Your task to perform on an android device: toggle show notifications on the lock screen Image 0: 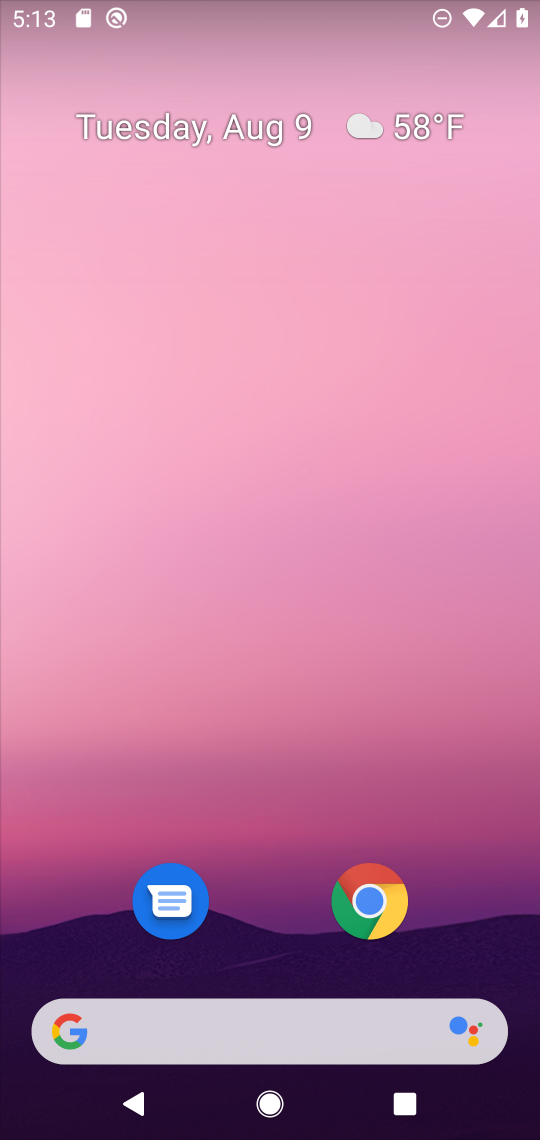
Step 0: drag from (282, 817) to (300, 92)
Your task to perform on an android device: toggle show notifications on the lock screen Image 1: 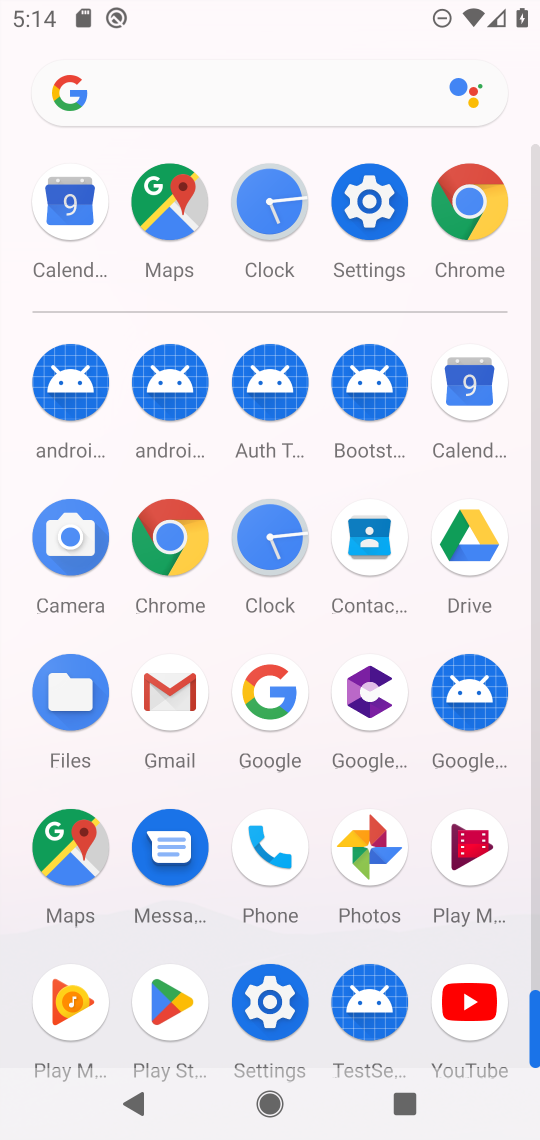
Step 1: click (289, 1008)
Your task to perform on an android device: toggle show notifications on the lock screen Image 2: 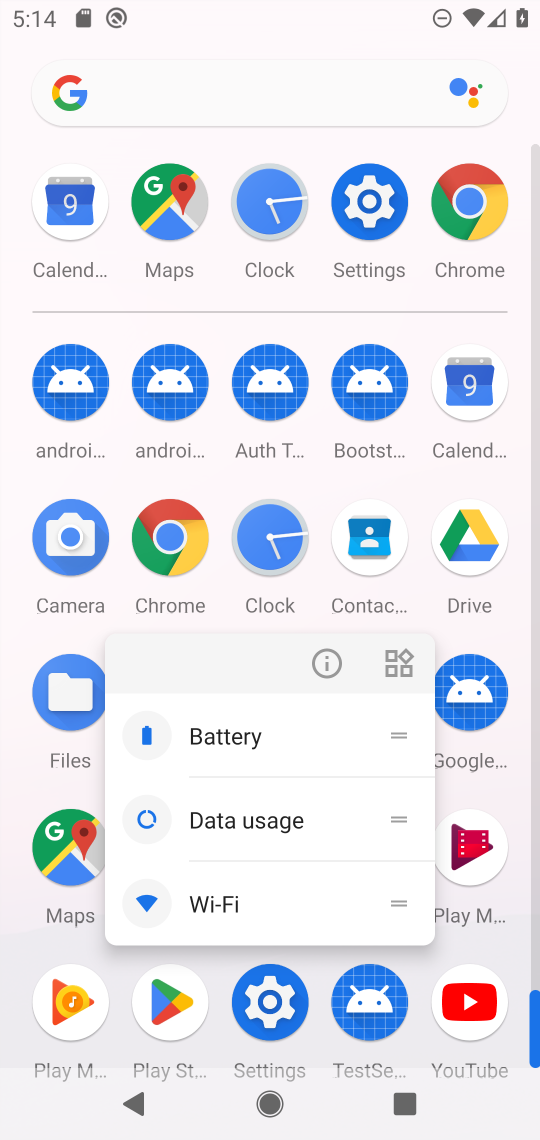
Step 2: click (257, 1005)
Your task to perform on an android device: toggle show notifications on the lock screen Image 3: 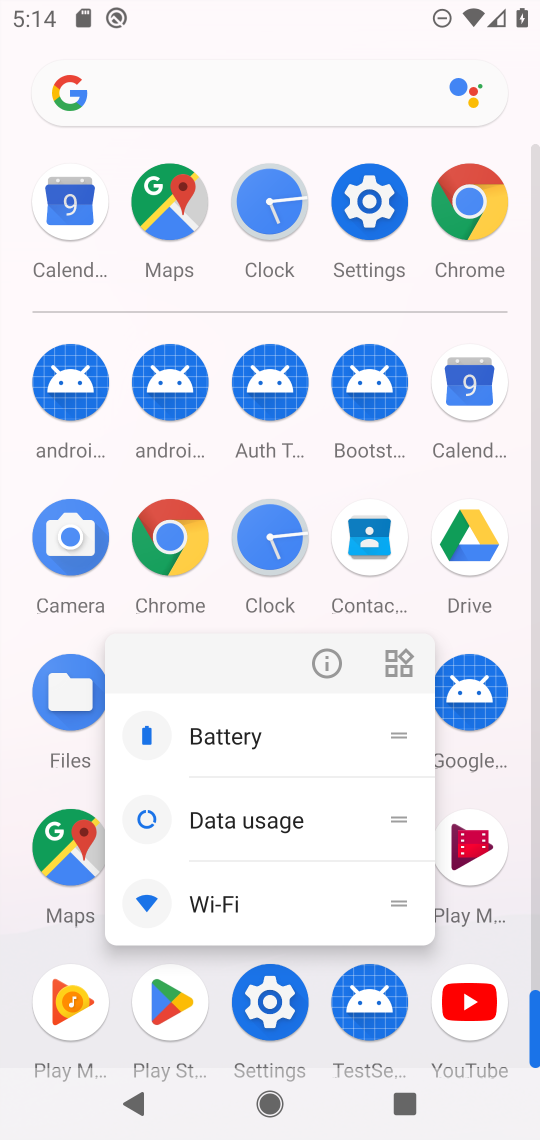
Step 3: click (266, 1019)
Your task to perform on an android device: toggle show notifications on the lock screen Image 4: 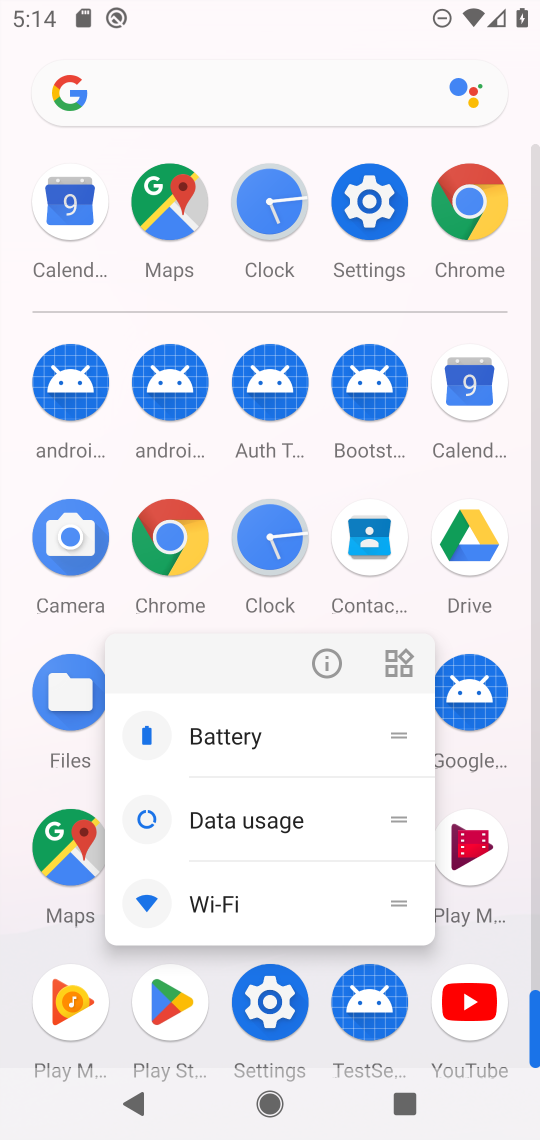
Step 4: click (267, 997)
Your task to perform on an android device: toggle show notifications on the lock screen Image 5: 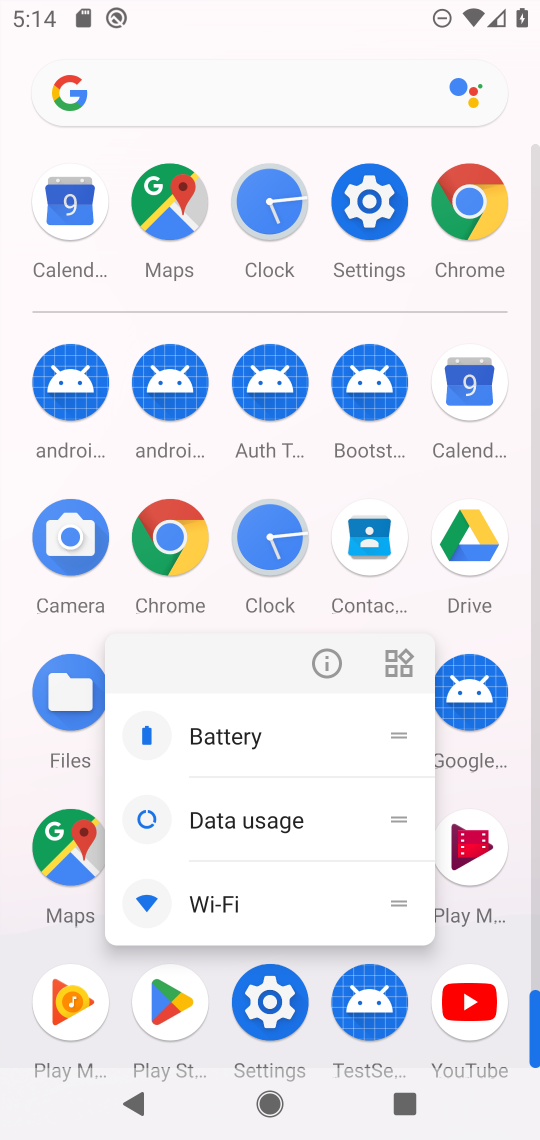
Step 5: click (281, 994)
Your task to perform on an android device: toggle show notifications on the lock screen Image 6: 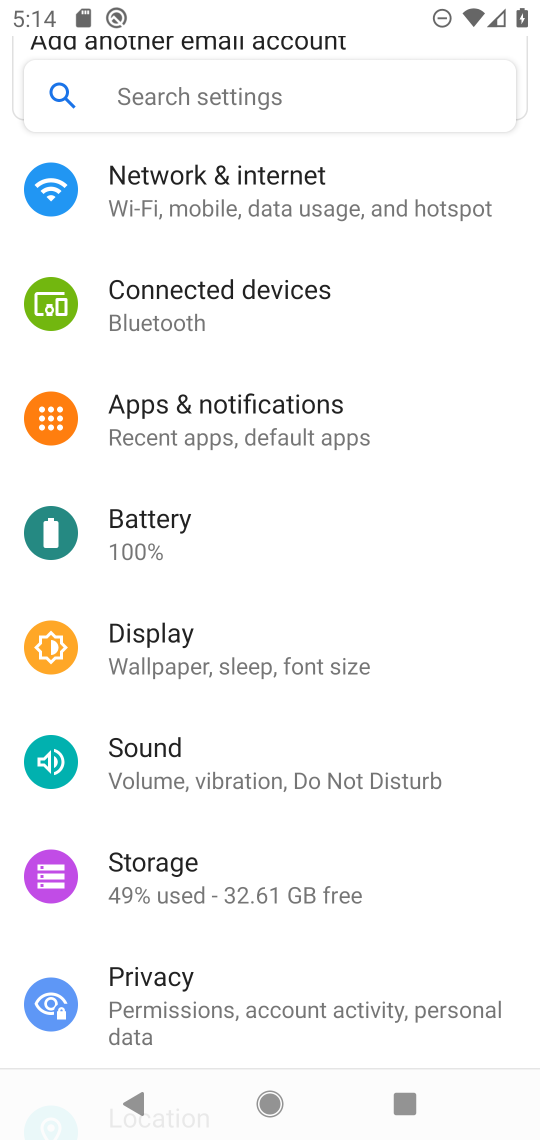
Step 6: click (258, 425)
Your task to perform on an android device: toggle show notifications on the lock screen Image 7: 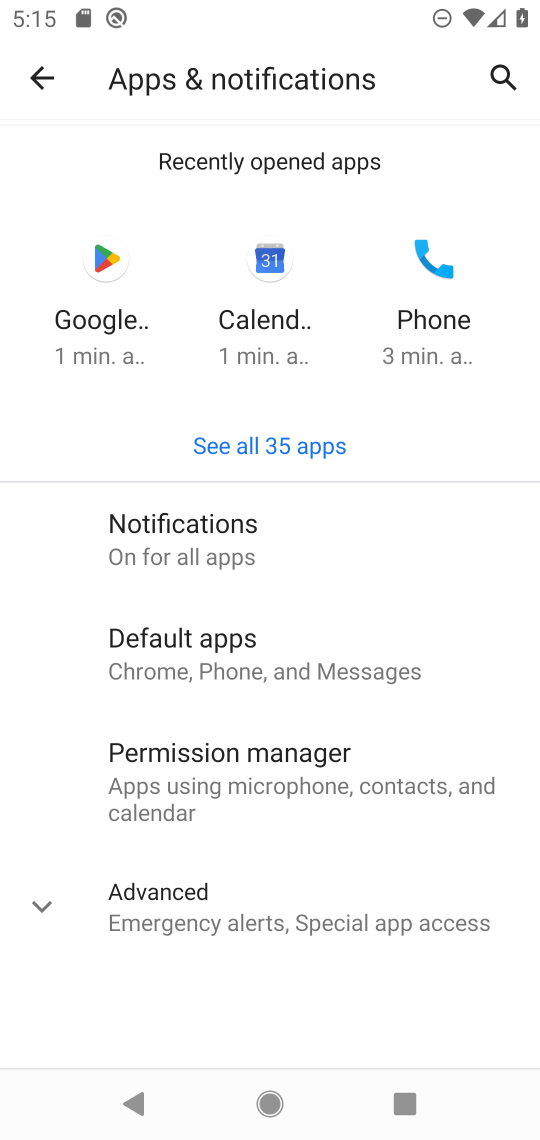
Step 7: click (209, 535)
Your task to perform on an android device: toggle show notifications on the lock screen Image 8: 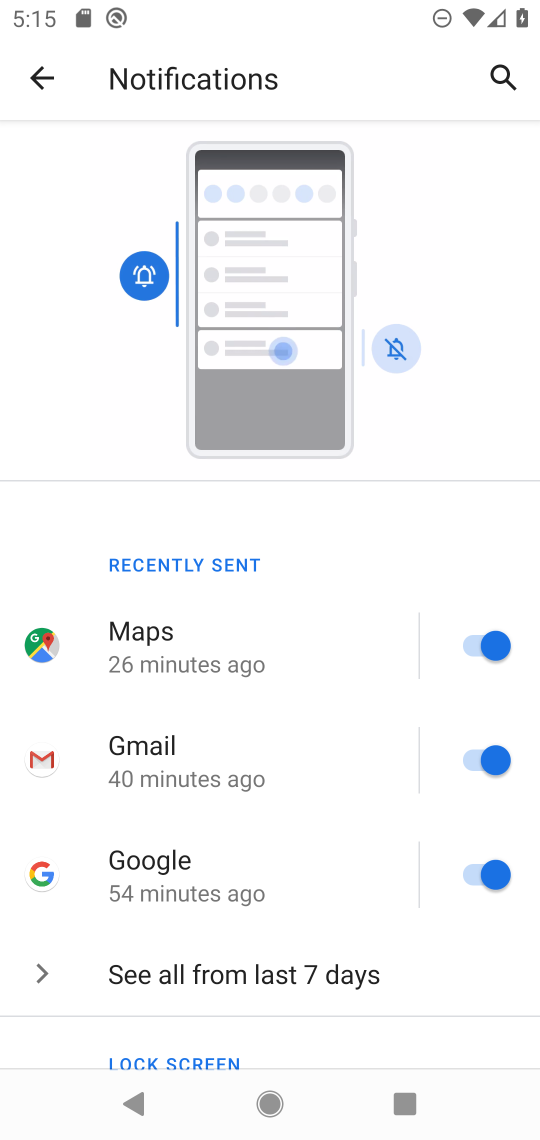
Step 8: drag from (281, 800) to (389, 165)
Your task to perform on an android device: toggle show notifications on the lock screen Image 9: 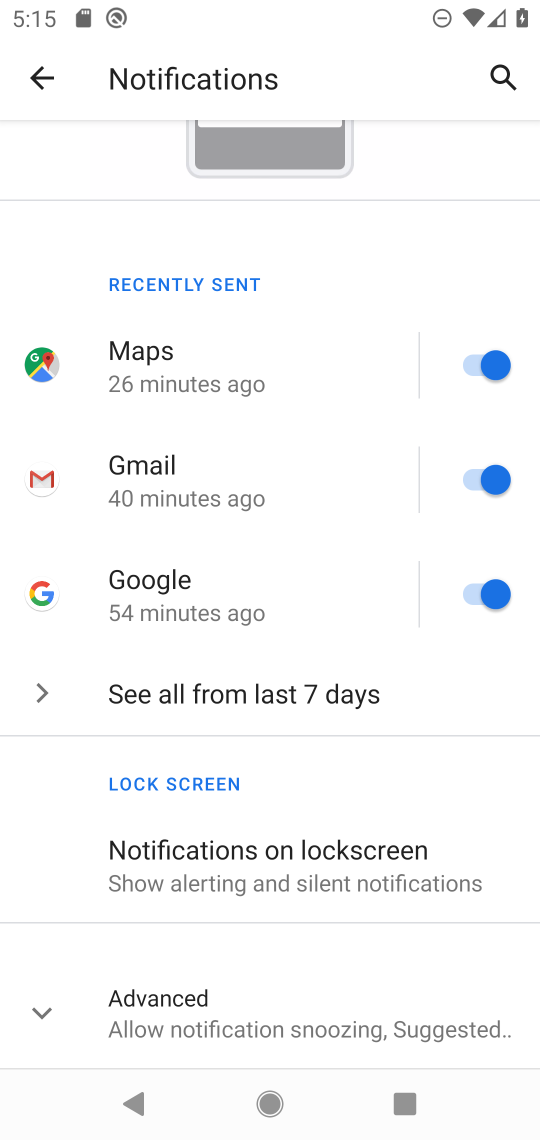
Step 9: click (183, 835)
Your task to perform on an android device: toggle show notifications on the lock screen Image 10: 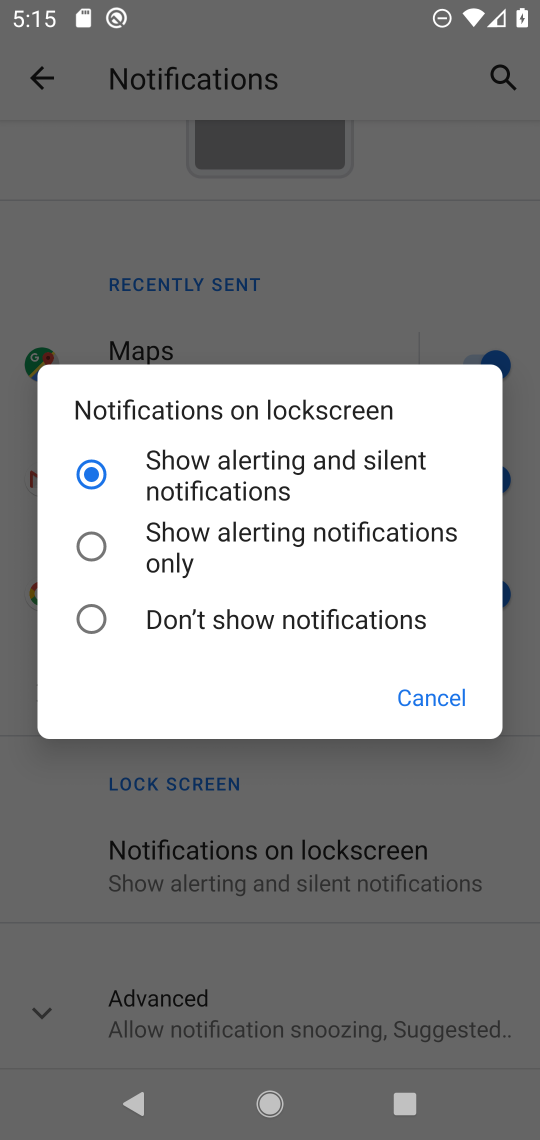
Step 10: click (235, 618)
Your task to perform on an android device: toggle show notifications on the lock screen Image 11: 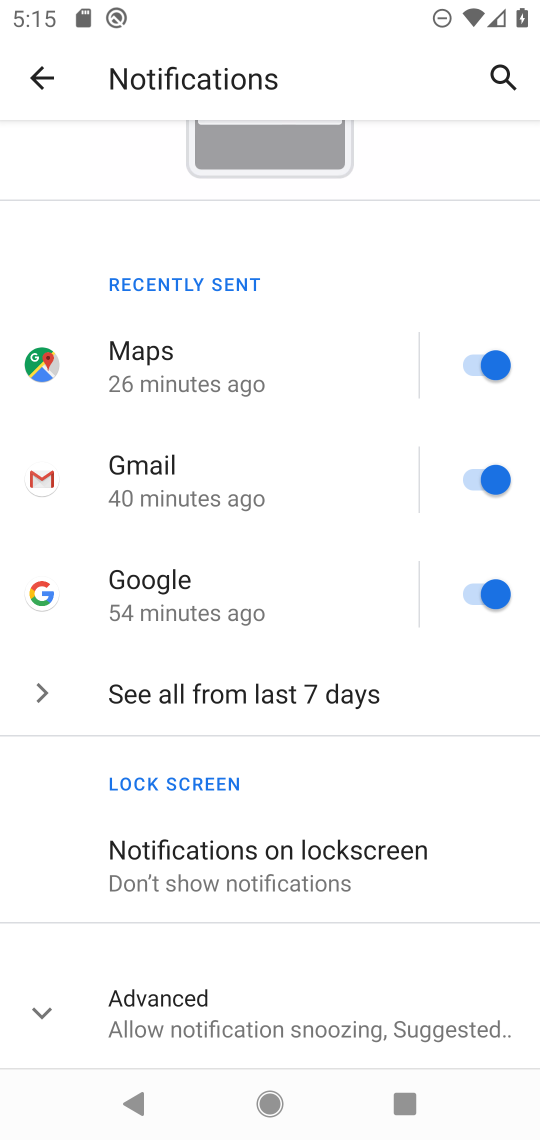
Step 11: task complete